Your task to perform on an android device: change the clock display to analog Image 0: 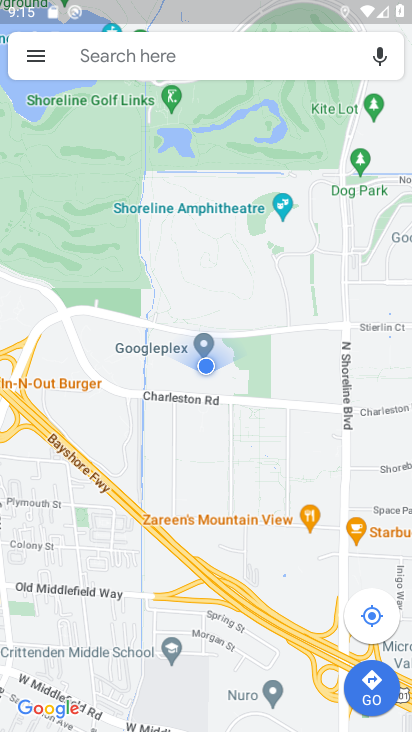
Step 0: press home button
Your task to perform on an android device: change the clock display to analog Image 1: 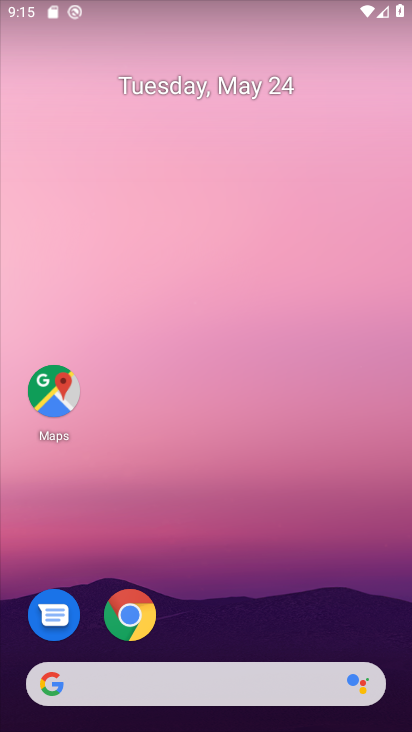
Step 1: drag from (220, 649) to (283, 51)
Your task to perform on an android device: change the clock display to analog Image 2: 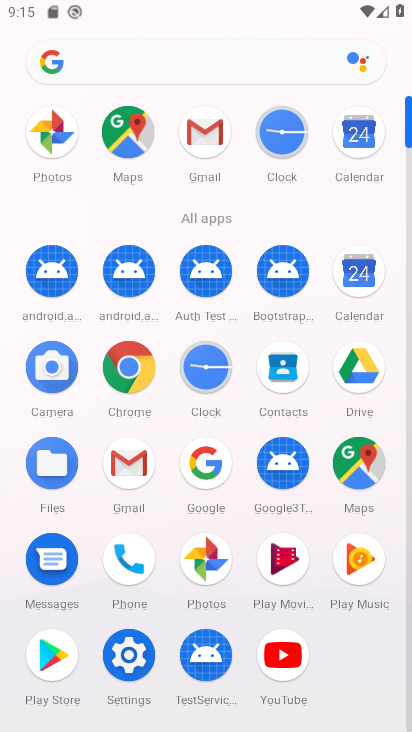
Step 2: click (206, 386)
Your task to perform on an android device: change the clock display to analog Image 3: 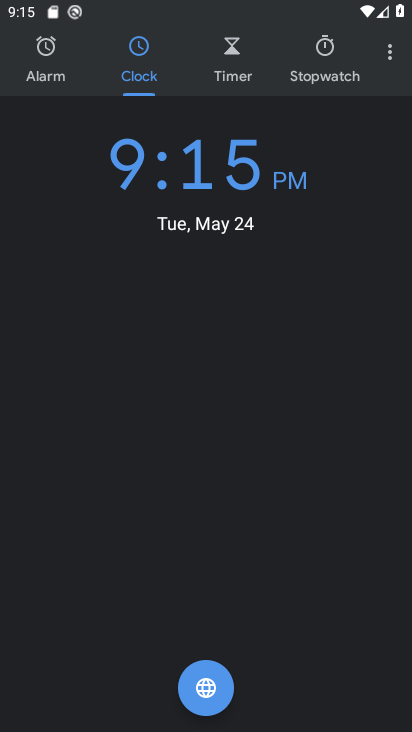
Step 3: click (389, 51)
Your task to perform on an android device: change the clock display to analog Image 4: 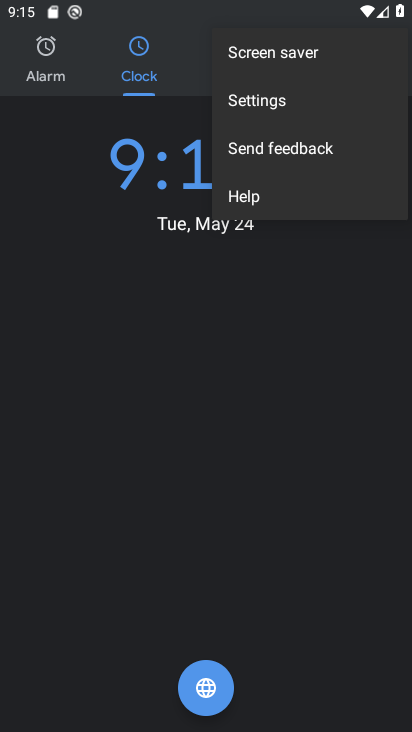
Step 4: click (341, 116)
Your task to perform on an android device: change the clock display to analog Image 5: 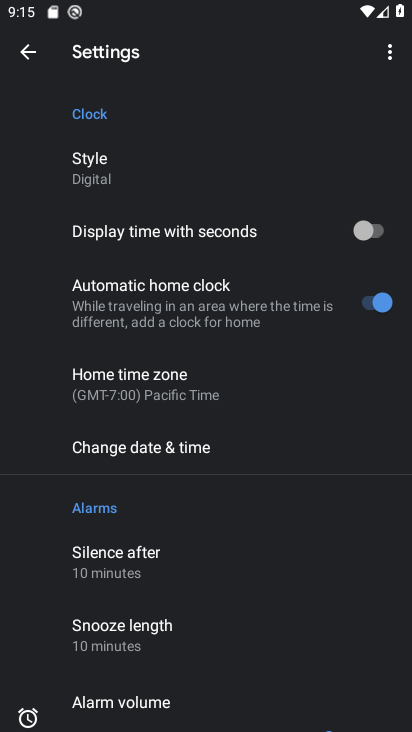
Step 5: click (238, 174)
Your task to perform on an android device: change the clock display to analog Image 6: 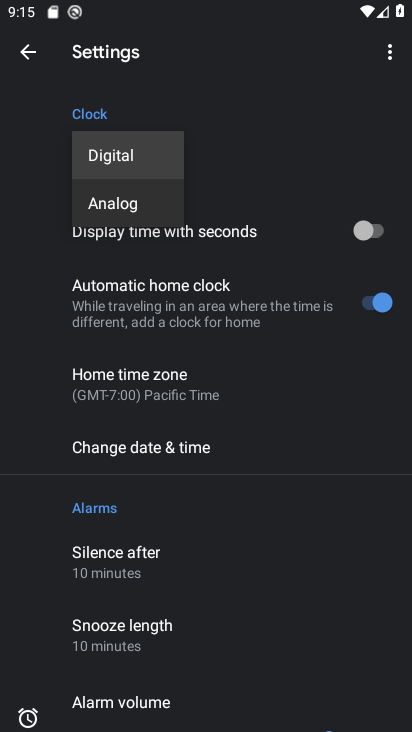
Step 6: click (140, 212)
Your task to perform on an android device: change the clock display to analog Image 7: 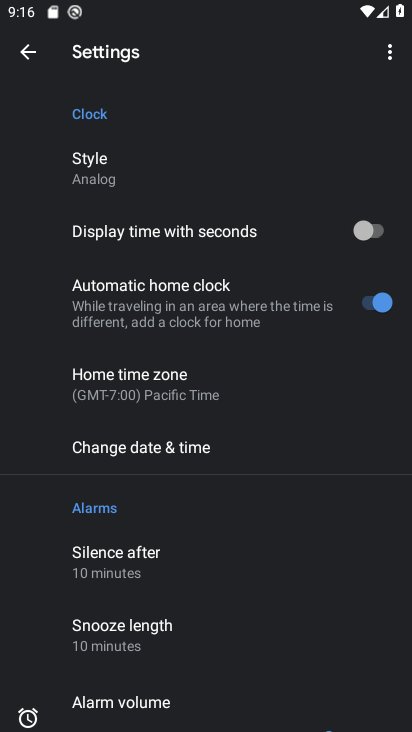
Step 7: task complete